Your task to perform on an android device: empty trash in google photos Image 0: 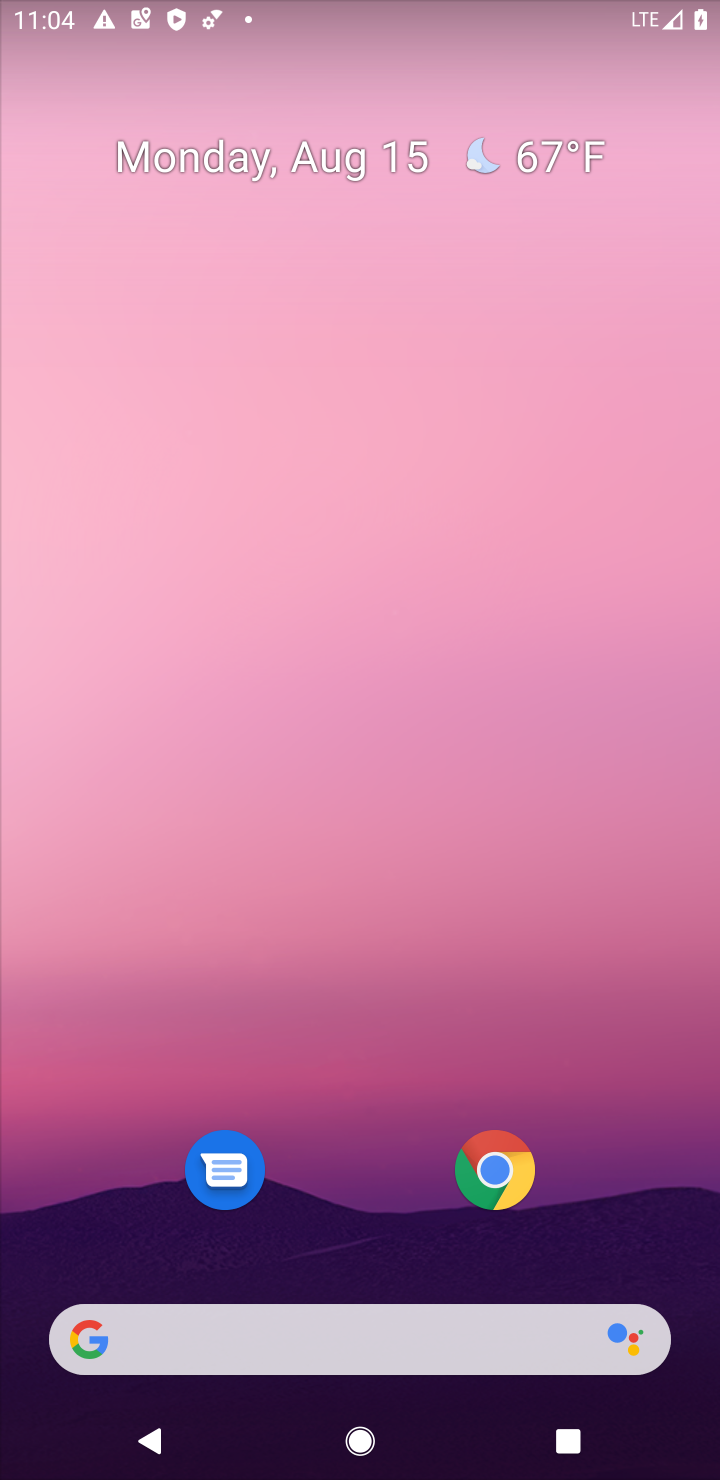
Step 0: drag from (379, 1143) to (455, 113)
Your task to perform on an android device: empty trash in google photos Image 1: 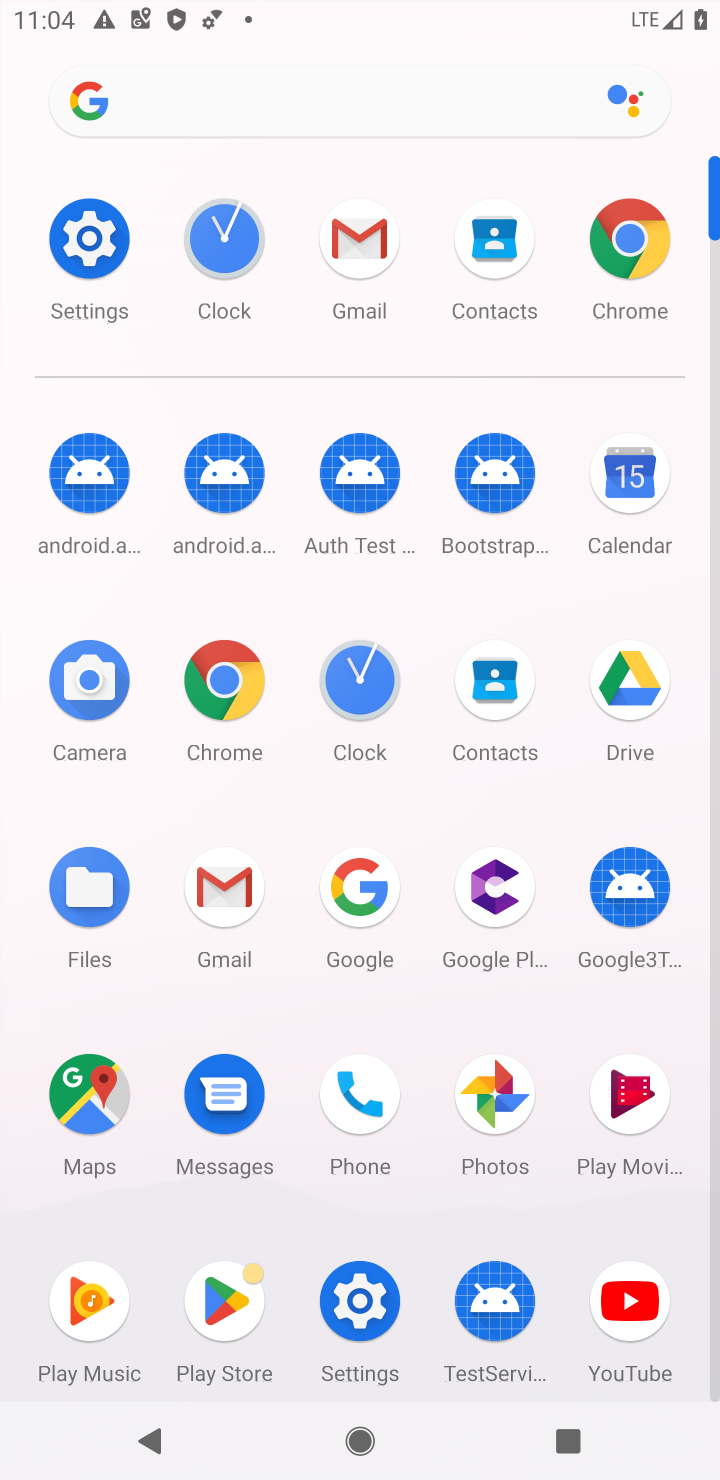
Step 1: click (495, 1086)
Your task to perform on an android device: empty trash in google photos Image 2: 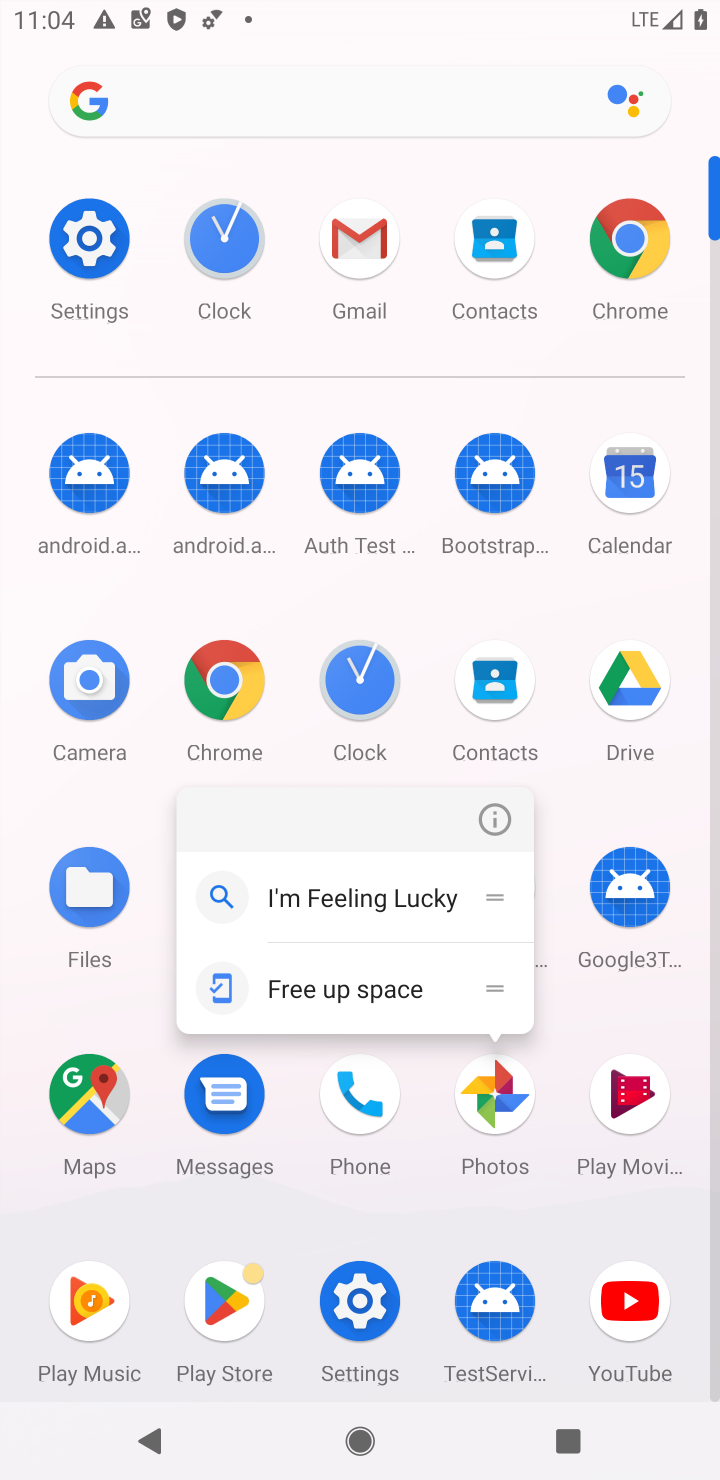
Step 2: click (488, 1079)
Your task to perform on an android device: empty trash in google photos Image 3: 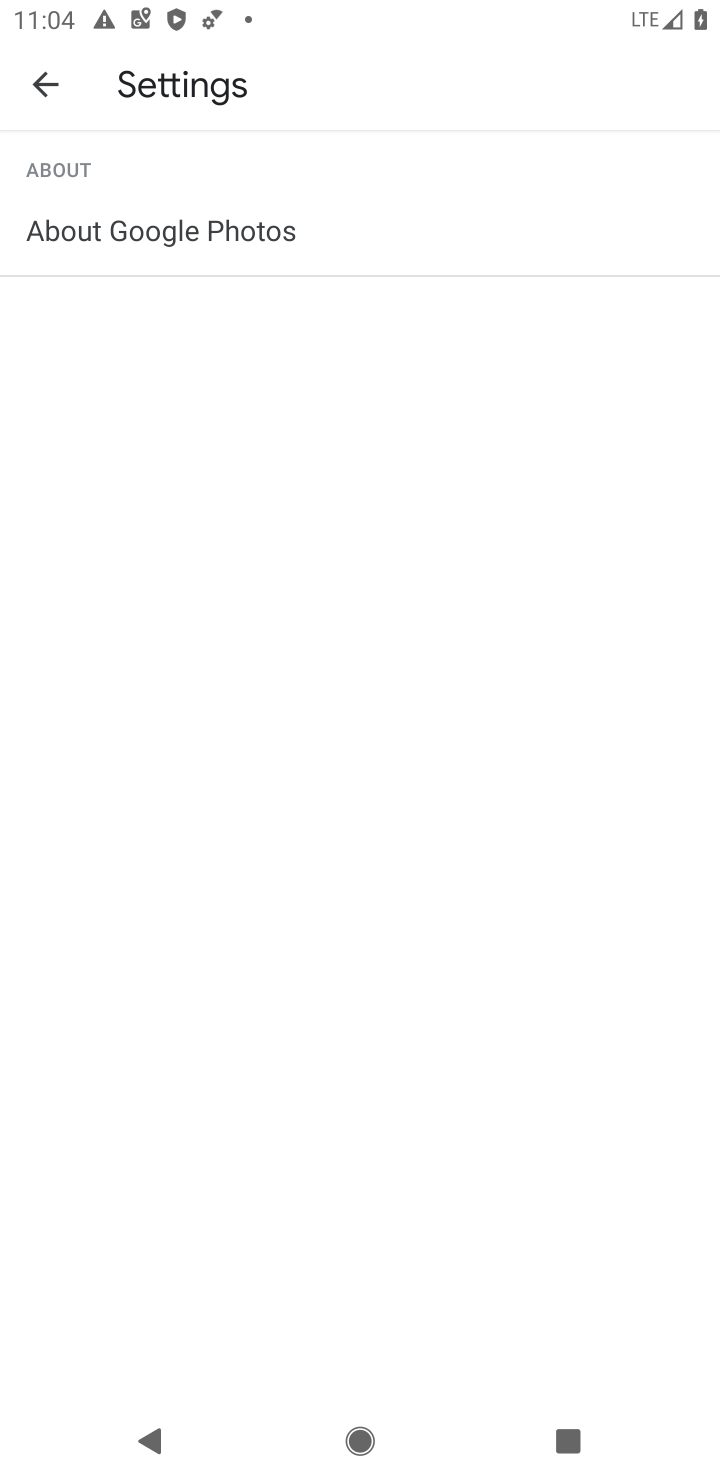
Step 3: click (51, 99)
Your task to perform on an android device: empty trash in google photos Image 4: 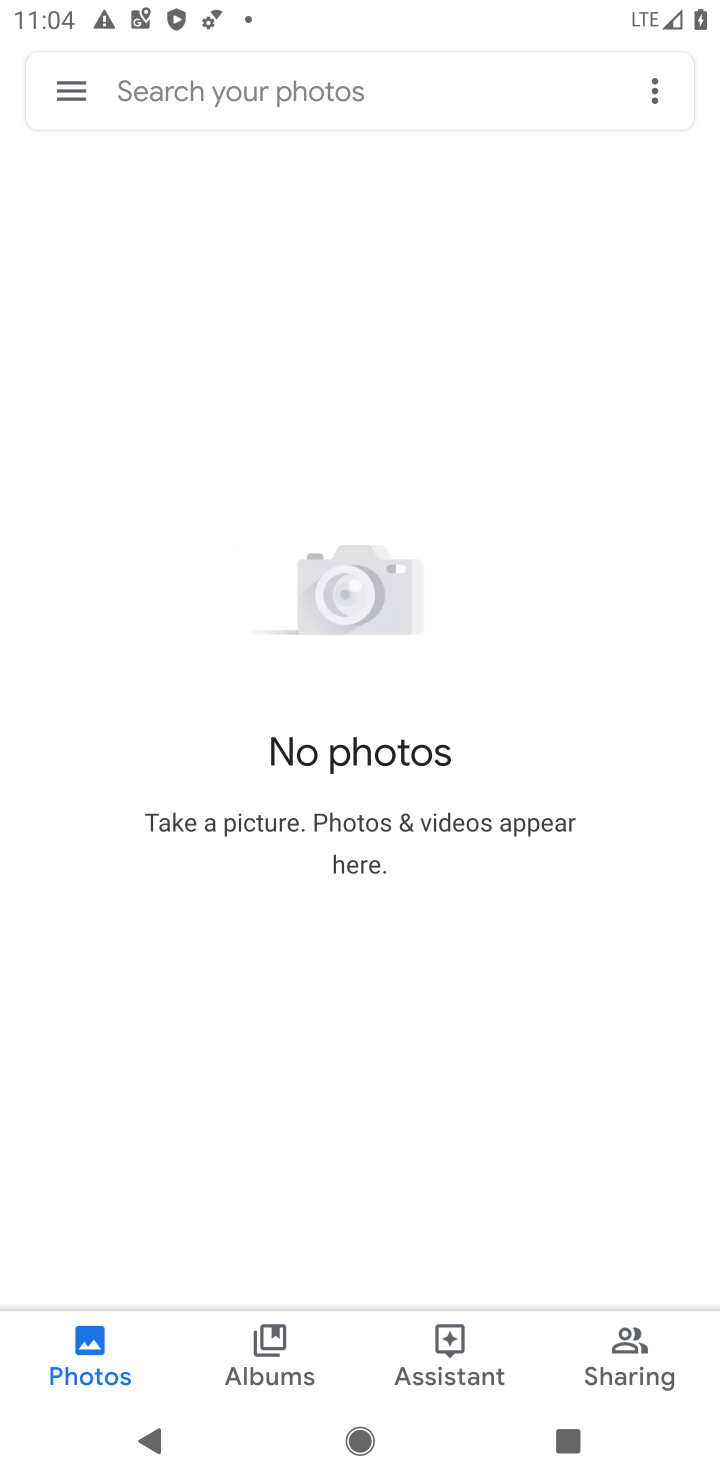
Step 4: click (53, 85)
Your task to perform on an android device: empty trash in google photos Image 5: 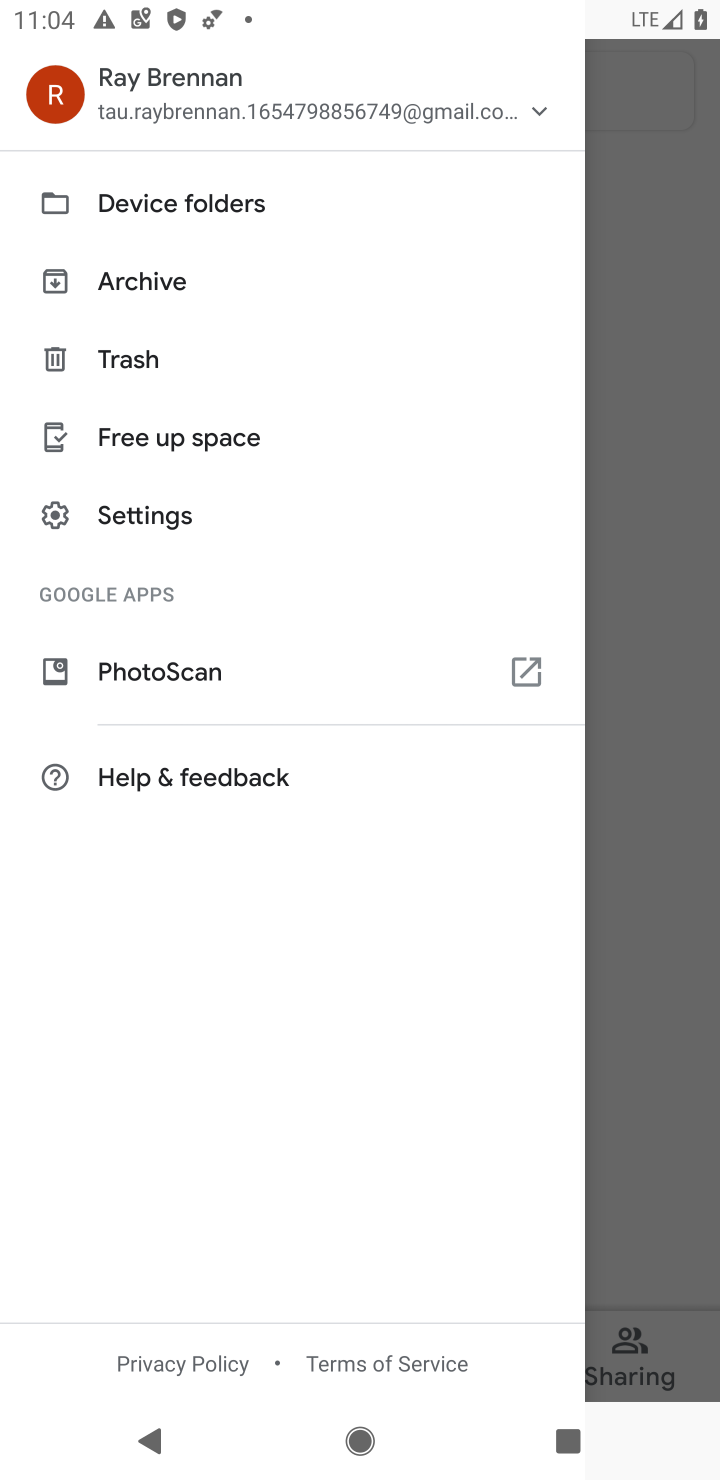
Step 5: click (175, 355)
Your task to perform on an android device: empty trash in google photos Image 6: 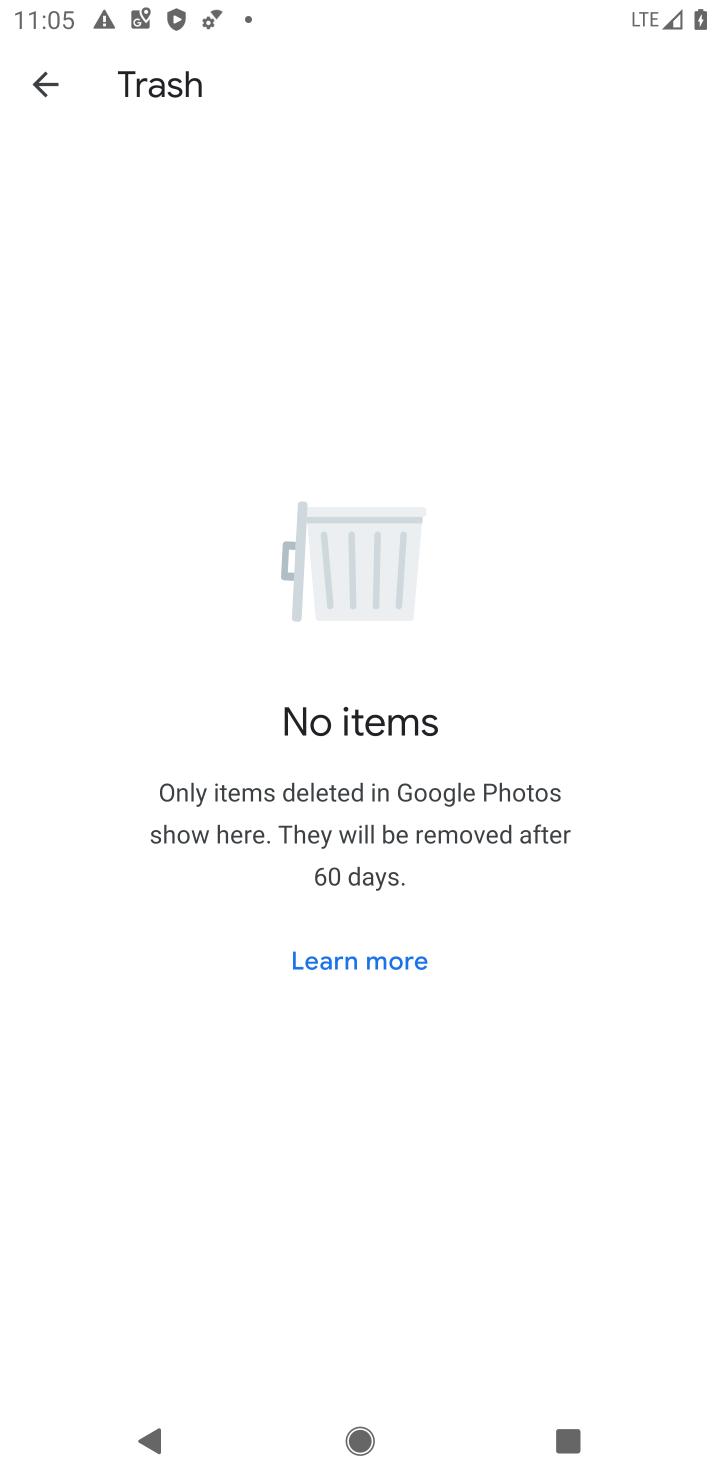
Step 6: task complete